Your task to perform on an android device: turn on priority inbox in the gmail app Image 0: 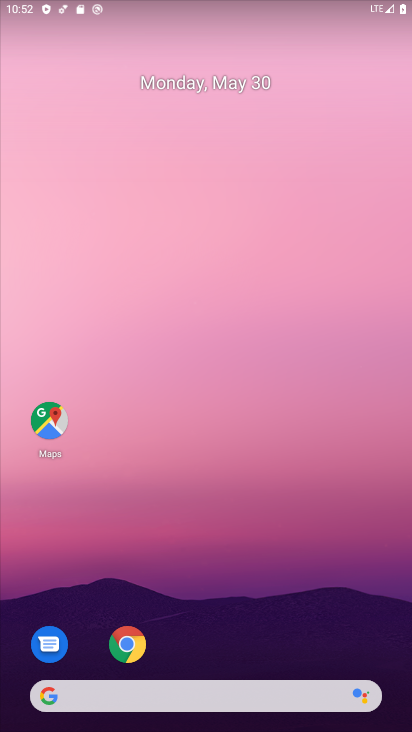
Step 0: drag from (280, 564) to (199, 135)
Your task to perform on an android device: turn on priority inbox in the gmail app Image 1: 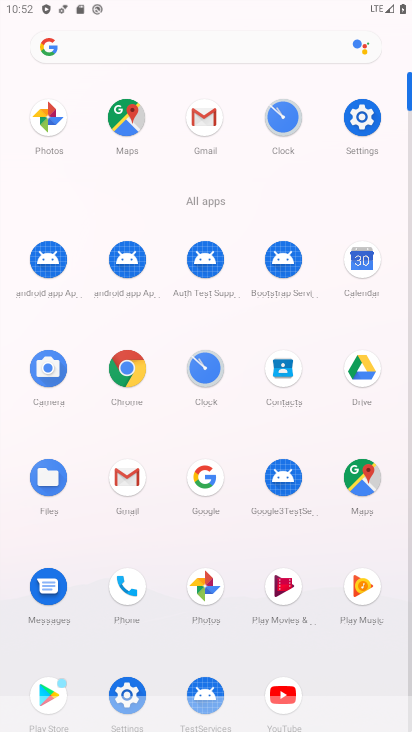
Step 1: click (156, 500)
Your task to perform on an android device: turn on priority inbox in the gmail app Image 2: 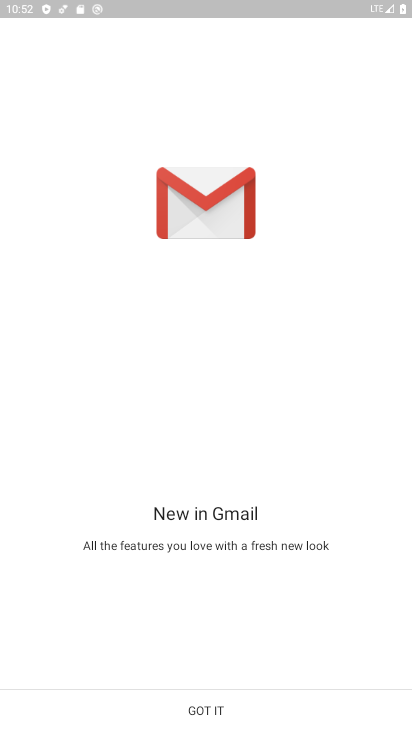
Step 2: click (266, 723)
Your task to perform on an android device: turn on priority inbox in the gmail app Image 3: 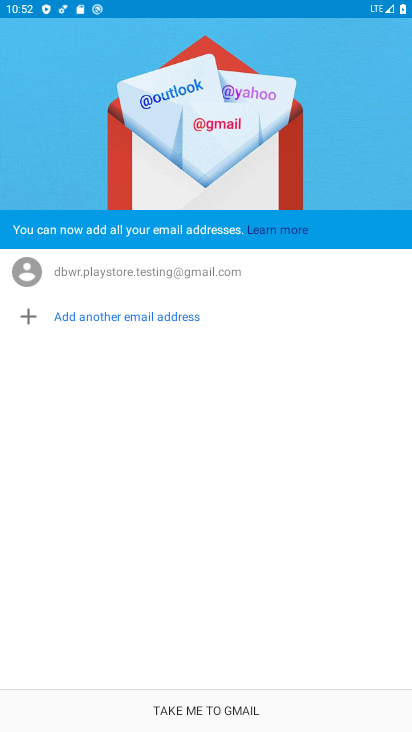
Step 3: click (297, 703)
Your task to perform on an android device: turn on priority inbox in the gmail app Image 4: 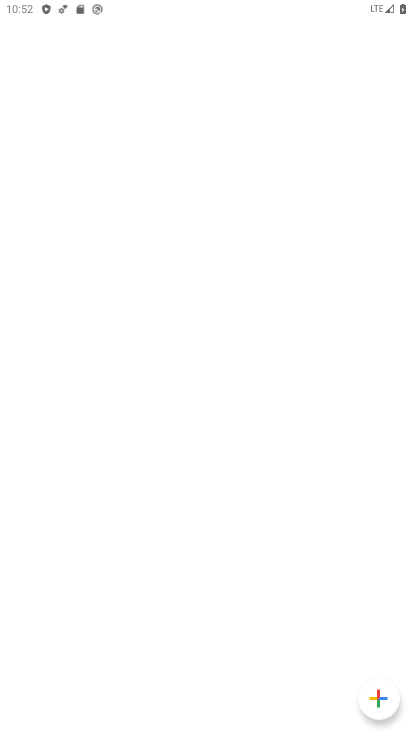
Step 4: drag from (297, 703) to (355, 577)
Your task to perform on an android device: turn on priority inbox in the gmail app Image 5: 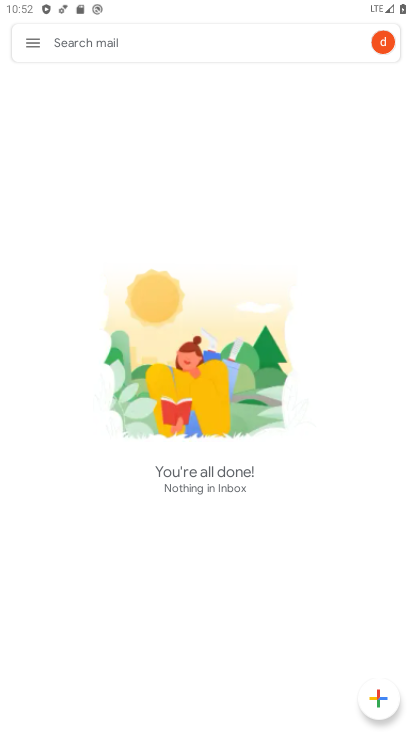
Step 5: click (35, 22)
Your task to perform on an android device: turn on priority inbox in the gmail app Image 6: 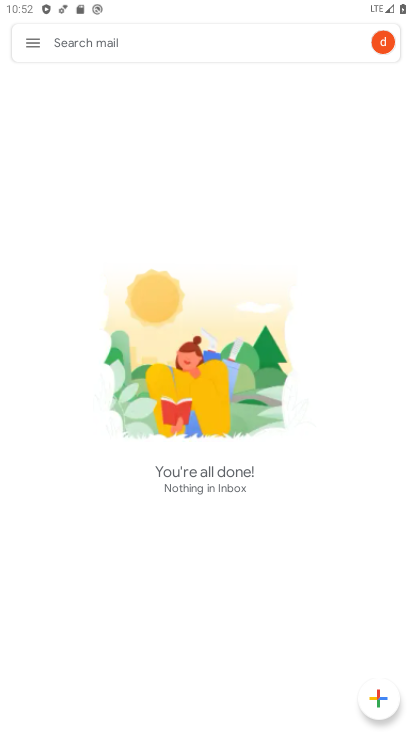
Step 6: click (35, 46)
Your task to perform on an android device: turn on priority inbox in the gmail app Image 7: 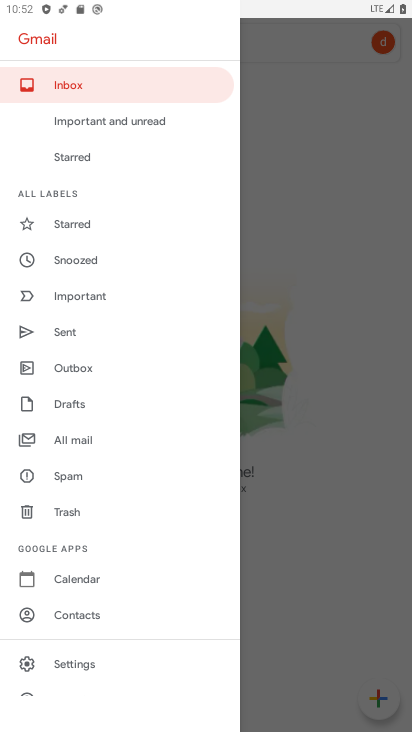
Step 7: click (96, 664)
Your task to perform on an android device: turn on priority inbox in the gmail app Image 8: 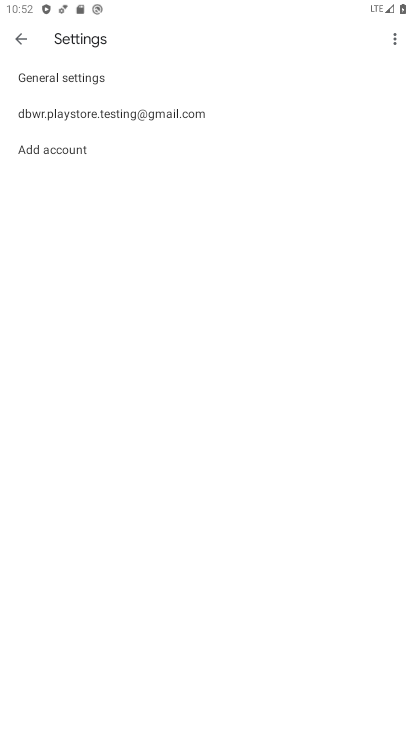
Step 8: click (215, 111)
Your task to perform on an android device: turn on priority inbox in the gmail app Image 9: 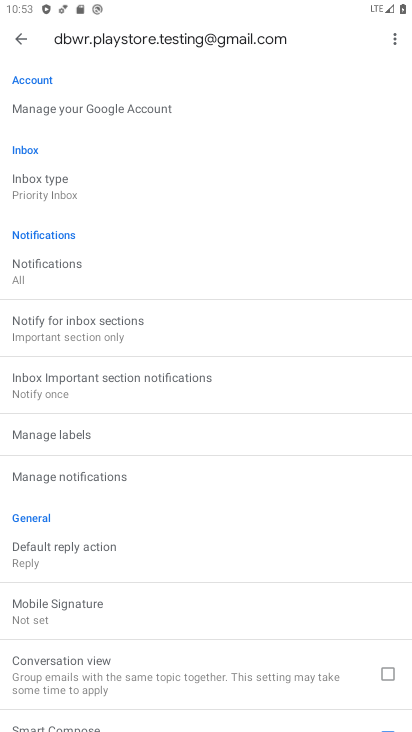
Step 9: click (102, 187)
Your task to perform on an android device: turn on priority inbox in the gmail app Image 10: 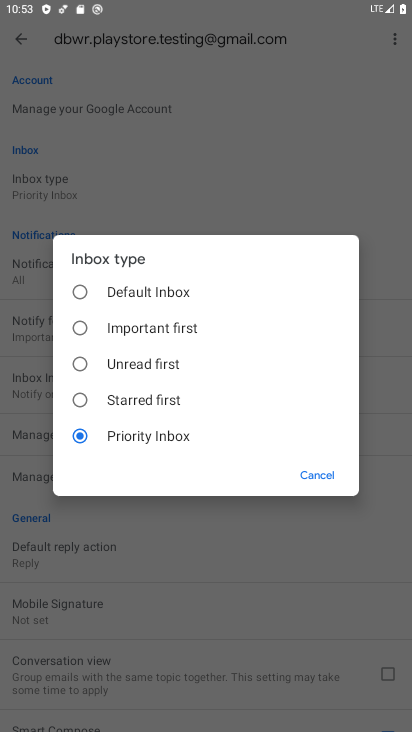
Step 10: click (164, 440)
Your task to perform on an android device: turn on priority inbox in the gmail app Image 11: 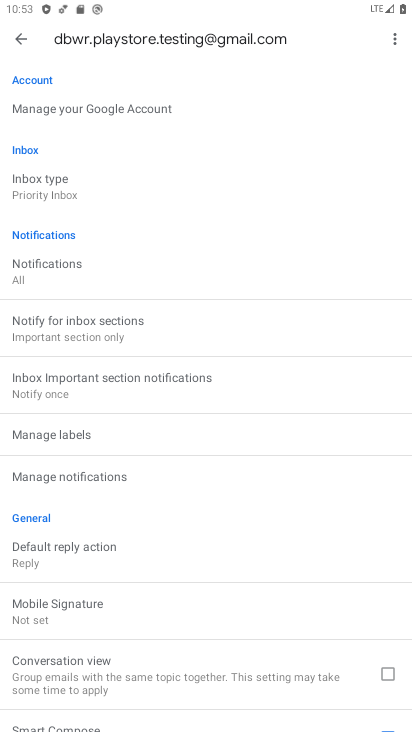
Step 11: task complete